Your task to perform on an android device: search for starred emails in the gmail app Image 0: 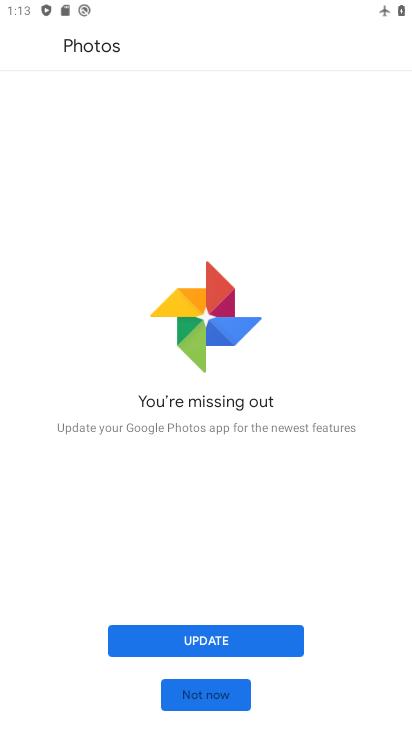
Step 0: press home button
Your task to perform on an android device: search for starred emails in the gmail app Image 1: 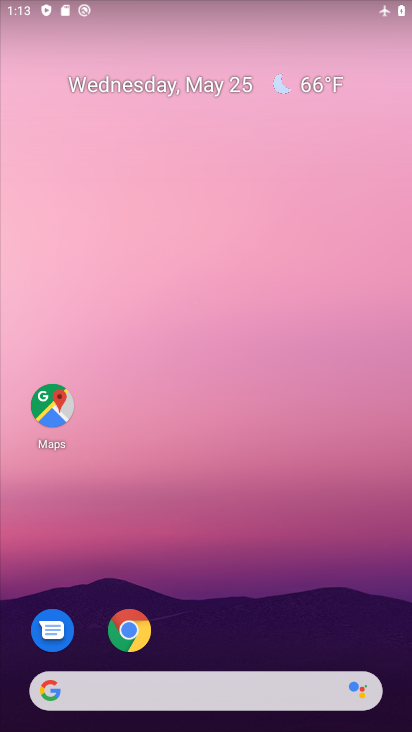
Step 1: drag from (188, 657) to (215, 178)
Your task to perform on an android device: search for starred emails in the gmail app Image 2: 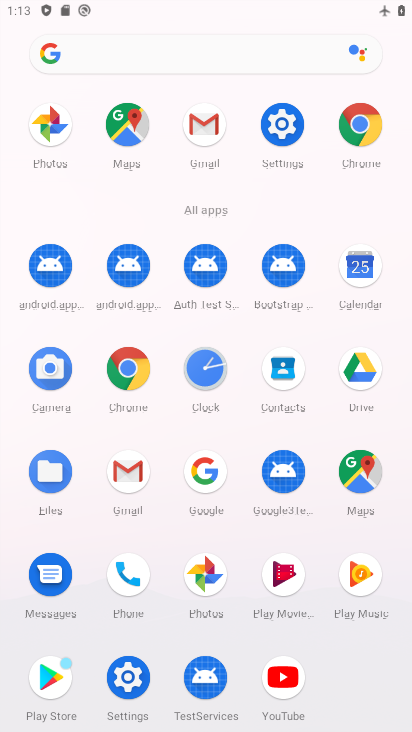
Step 2: click (123, 464)
Your task to perform on an android device: search for starred emails in the gmail app Image 3: 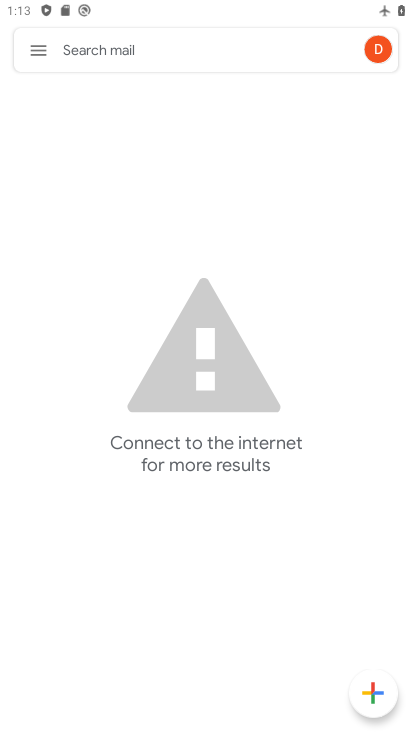
Step 3: click (36, 52)
Your task to perform on an android device: search for starred emails in the gmail app Image 4: 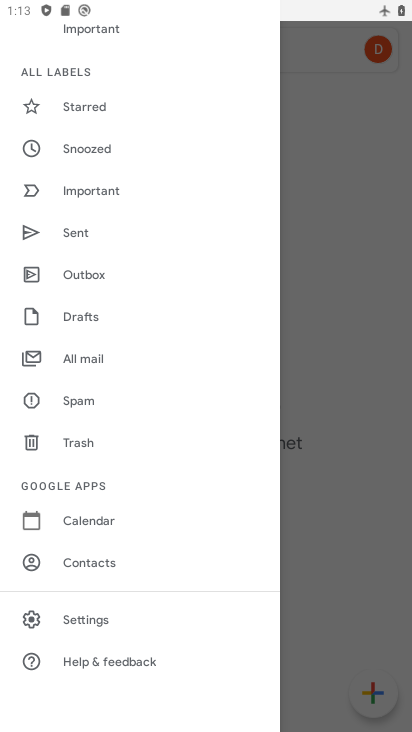
Step 4: click (118, 101)
Your task to perform on an android device: search for starred emails in the gmail app Image 5: 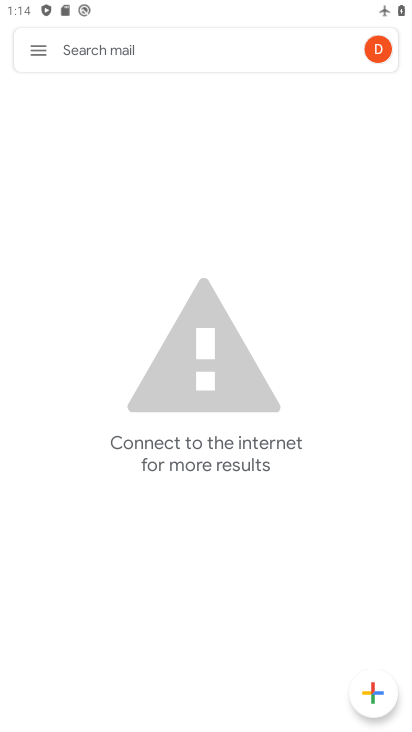
Step 5: task complete